Your task to perform on an android device: Open eBay Image 0: 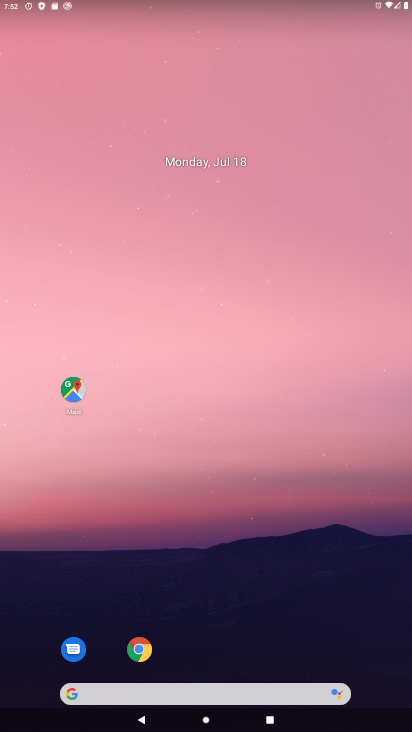
Step 0: drag from (295, 627) to (262, 39)
Your task to perform on an android device: Open eBay Image 1: 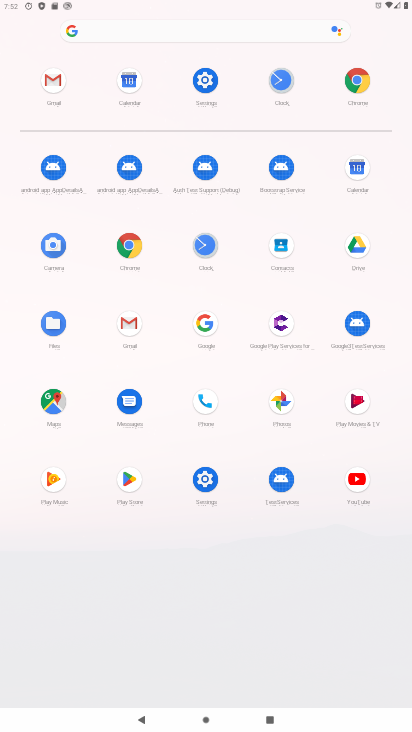
Step 1: click (355, 79)
Your task to perform on an android device: Open eBay Image 2: 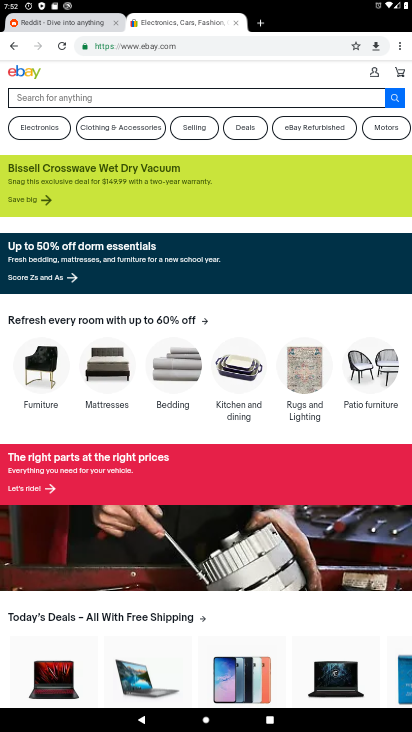
Step 2: task complete